Your task to perform on an android device: show emergency info Image 0: 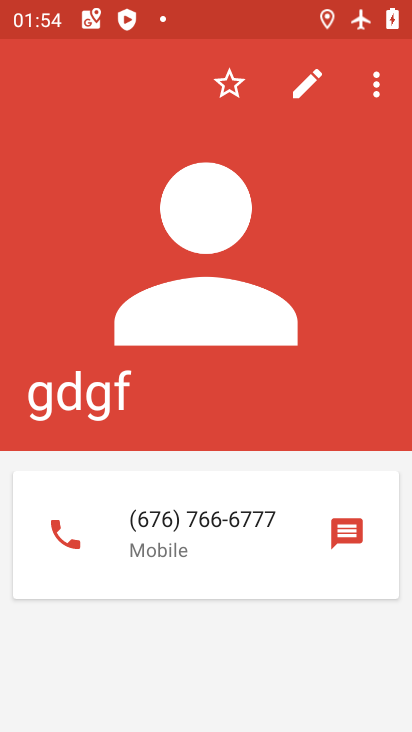
Step 0: press home button
Your task to perform on an android device: show emergency info Image 1: 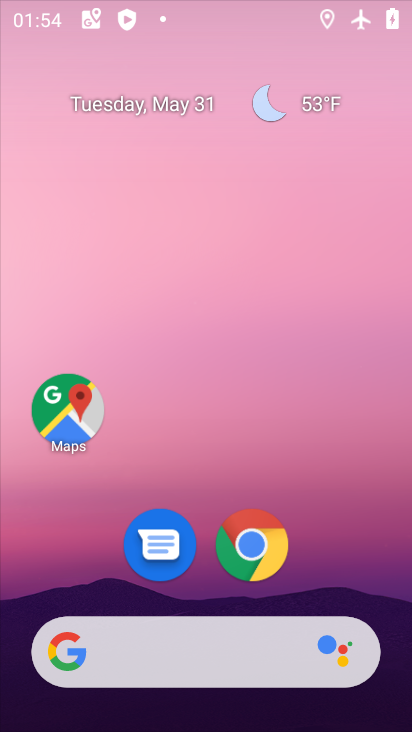
Step 1: drag from (364, 596) to (251, 0)
Your task to perform on an android device: show emergency info Image 2: 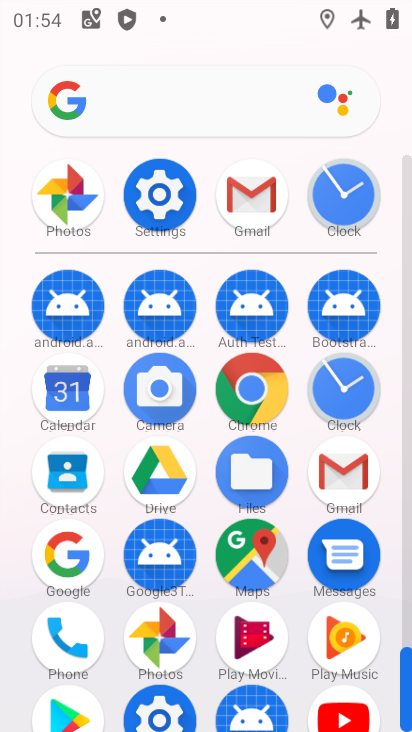
Step 2: click (172, 187)
Your task to perform on an android device: show emergency info Image 3: 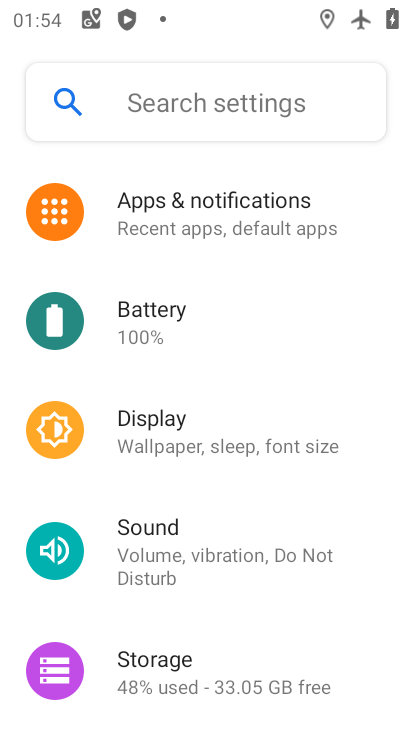
Step 3: drag from (237, 657) to (207, 82)
Your task to perform on an android device: show emergency info Image 4: 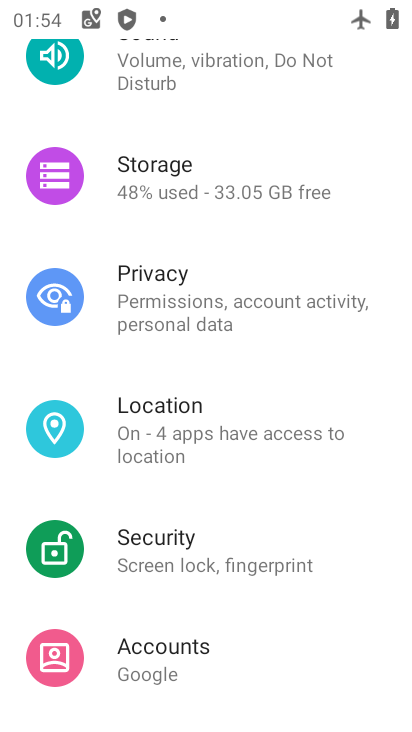
Step 4: drag from (222, 677) to (185, 117)
Your task to perform on an android device: show emergency info Image 5: 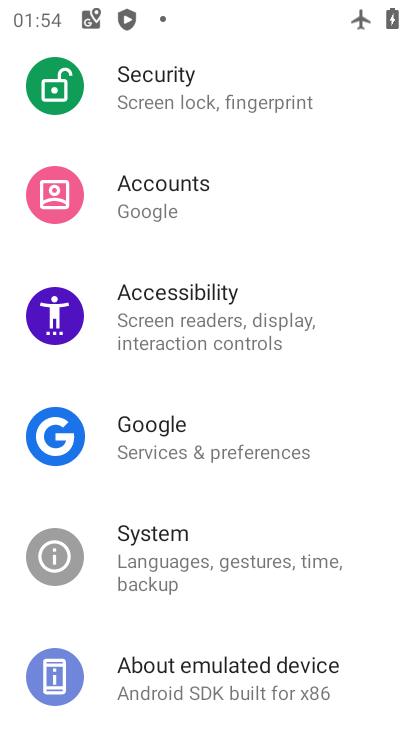
Step 5: click (201, 686)
Your task to perform on an android device: show emergency info Image 6: 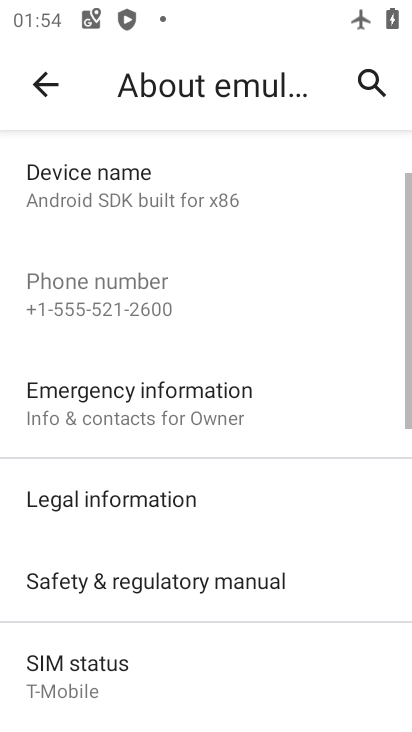
Step 6: click (169, 406)
Your task to perform on an android device: show emergency info Image 7: 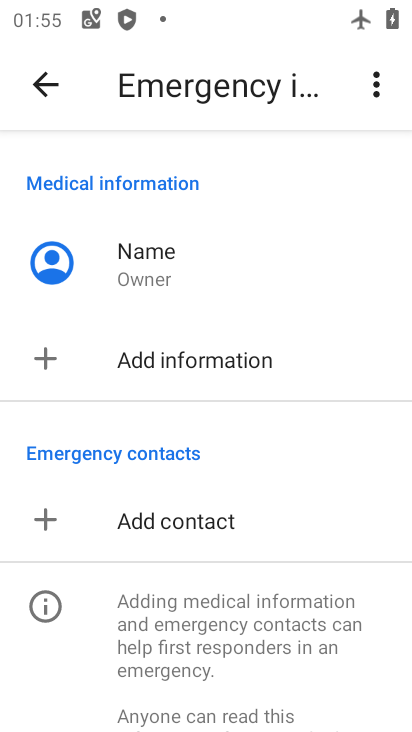
Step 7: task complete